Your task to perform on an android device: Open Yahoo.com Image 0: 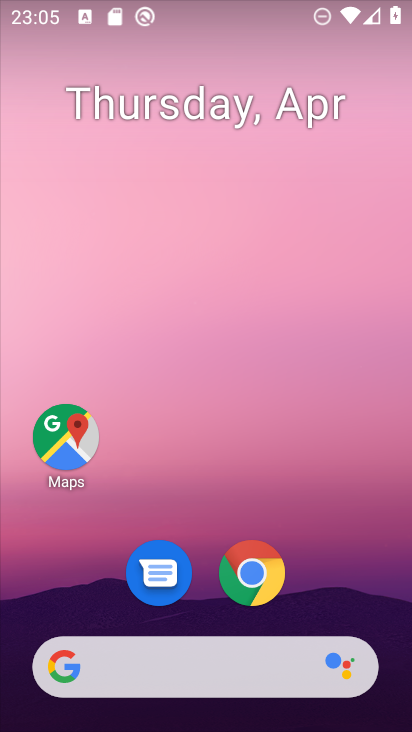
Step 0: drag from (306, 301) to (272, 15)
Your task to perform on an android device: Open Yahoo.com Image 1: 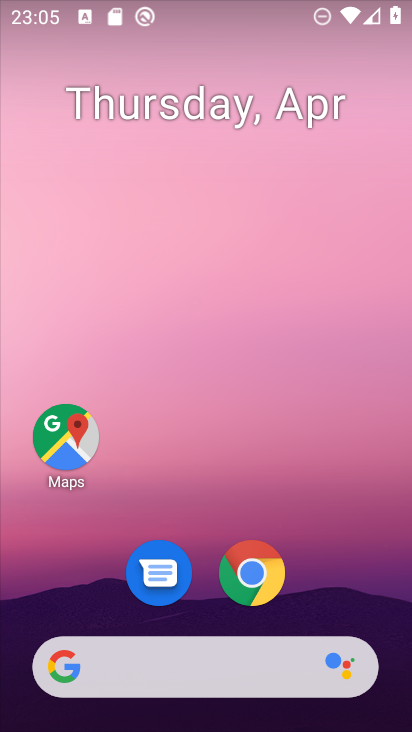
Step 1: drag from (322, 591) to (161, 11)
Your task to perform on an android device: Open Yahoo.com Image 2: 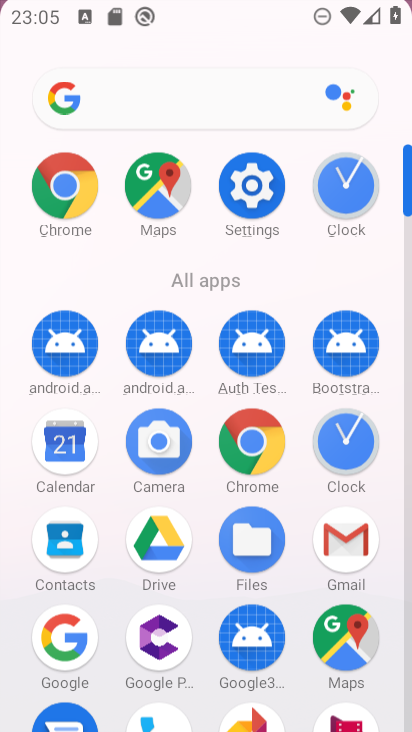
Step 2: click (54, 199)
Your task to perform on an android device: Open Yahoo.com Image 3: 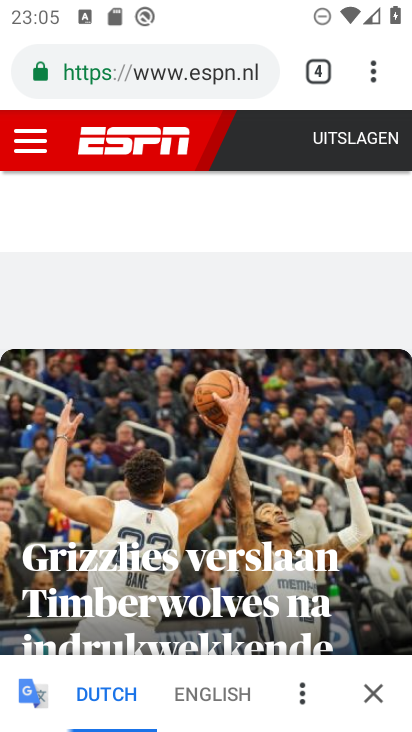
Step 3: click (368, 68)
Your task to perform on an android device: Open Yahoo.com Image 4: 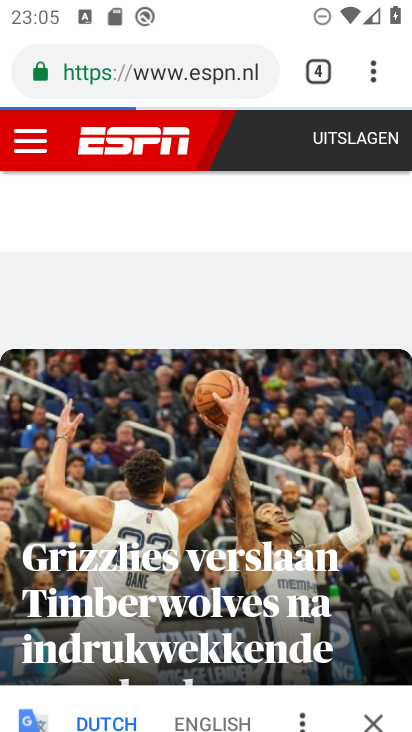
Step 4: click (368, 68)
Your task to perform on an android device: Open Yahoo.com Image 5: 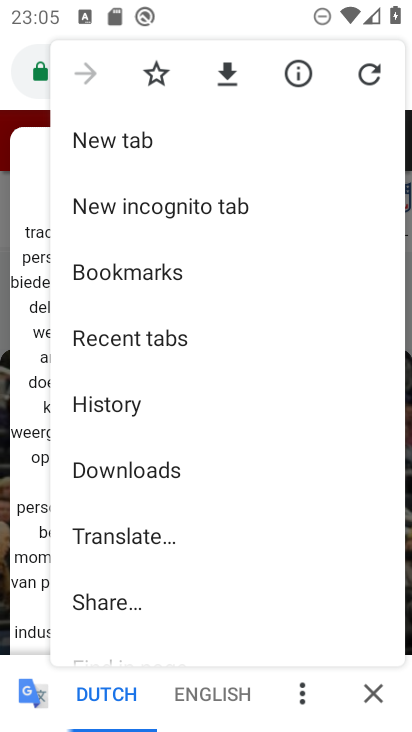
Step 5: click (33, 189)
Your task to perform on an android device: Open Yahoo.com Image 6: 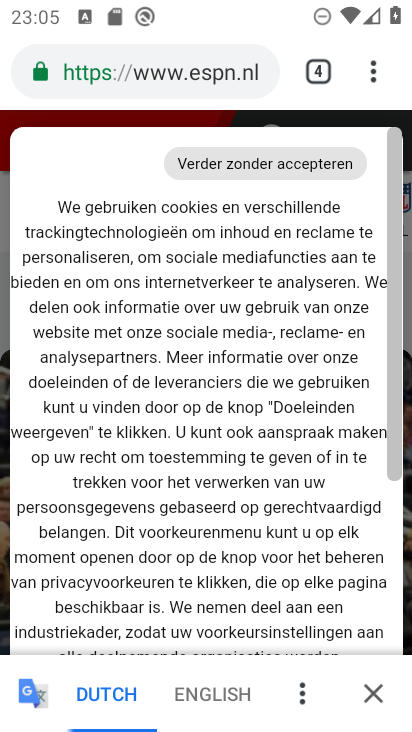
Step 6: click (322, 72)
Your task to perform on an android device: Open Yahoo.com Image 7: 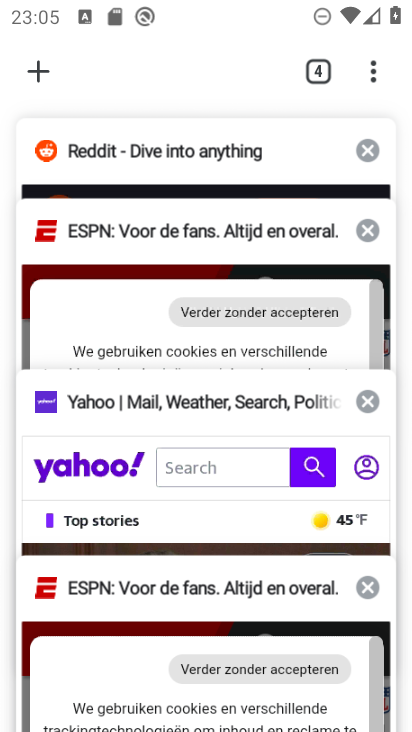
Step 7: click (40, 53)
Your task to perform on an android device: Open Yahoo.com Image 8: 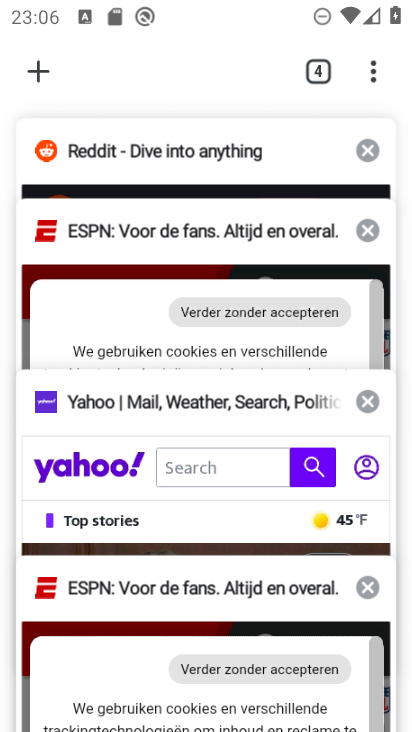
Step 8: click (140, 468)
Your task to perform on an android device: Open Yahoo.com Image 9: 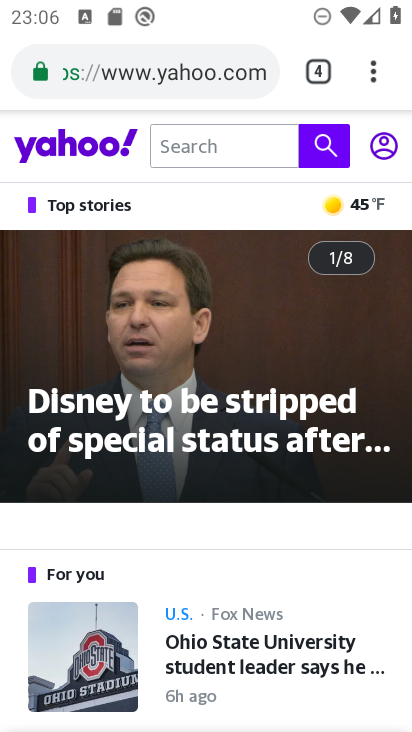
Step 9: task complete